Your task to perform on an android device: Go to internet settings Image 0: 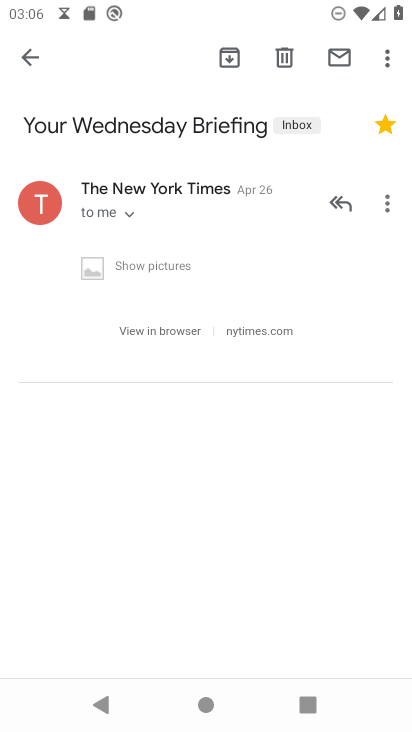
Step 0: press home button
Your task to perform on an android device: Go to internet settings Image 1: 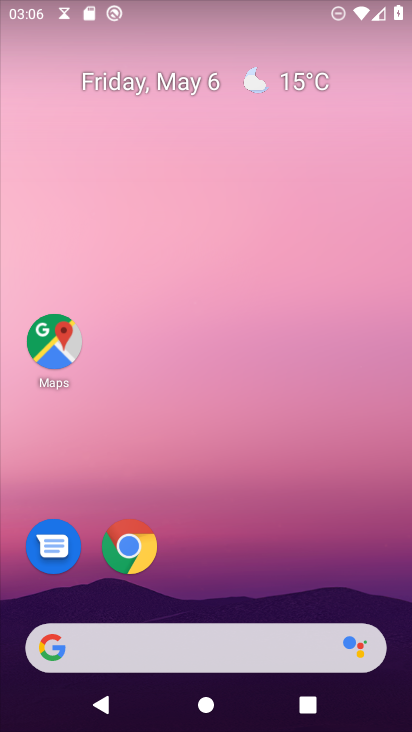
Step 1: drag from (253, 543) to (288, 149)
Your task to perform on an android device: Go to internet settings Image 2: 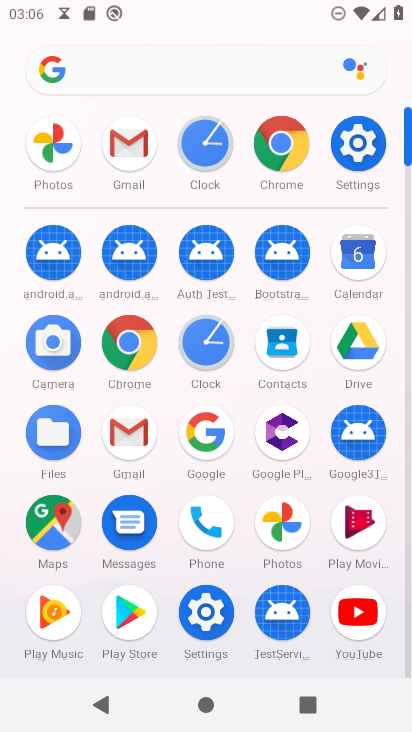
Step 2: click (352, 194)
Your task to perform on an android device: Go to internet settings Image 3: 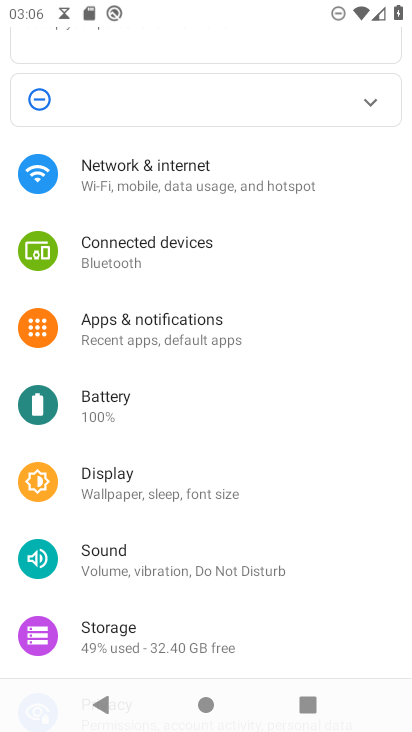
Step 3: click (169, 183)
Your task to perform on an android device: Go to internet settings Image 4: 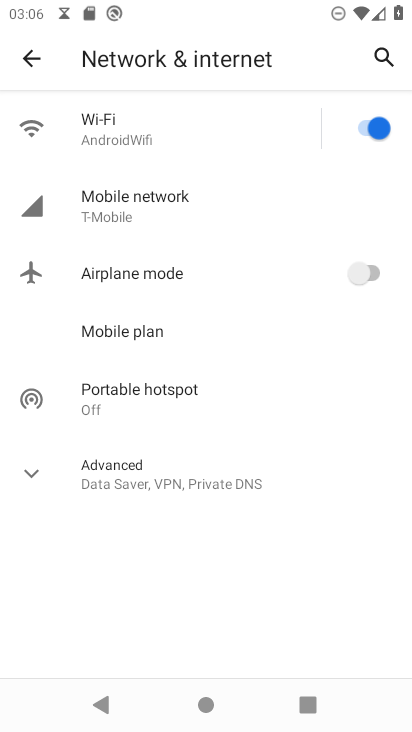
Step 4: task complete